Your task to perform on an android device: turn on sleep mode Image 0: 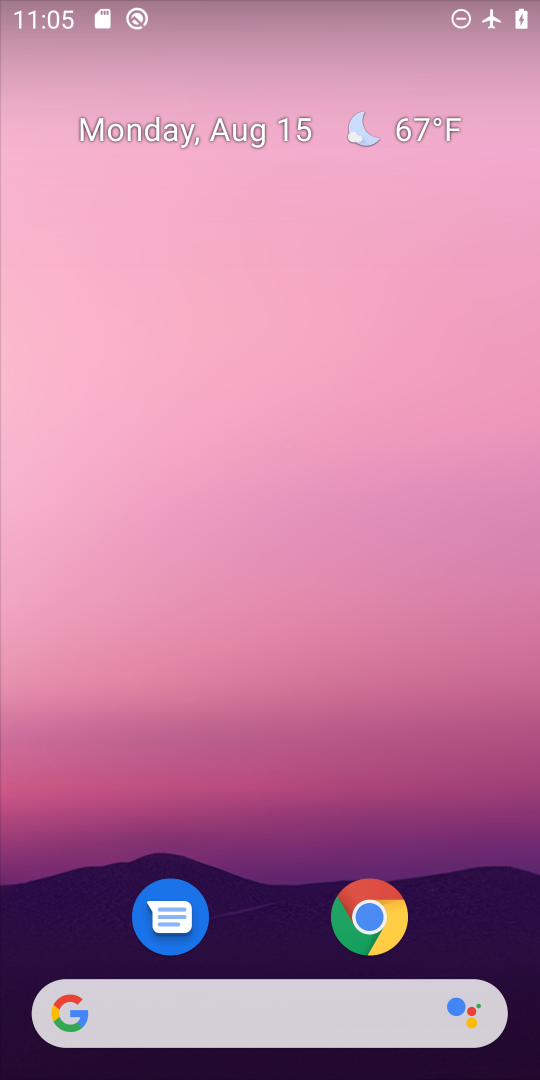
Step 0: drag from (275, 743) to (274, 0)
Your task to perform on an android device: turn on sleep mode Image 1: 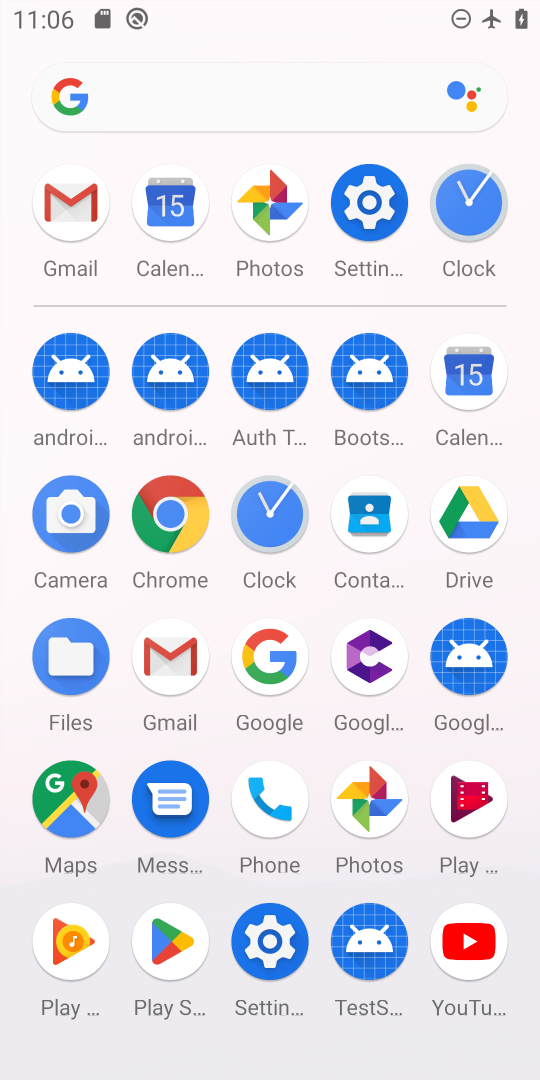
Step 1: click (376, 194)
Your task to perform on an android device: turn on sleep mode Image 2: 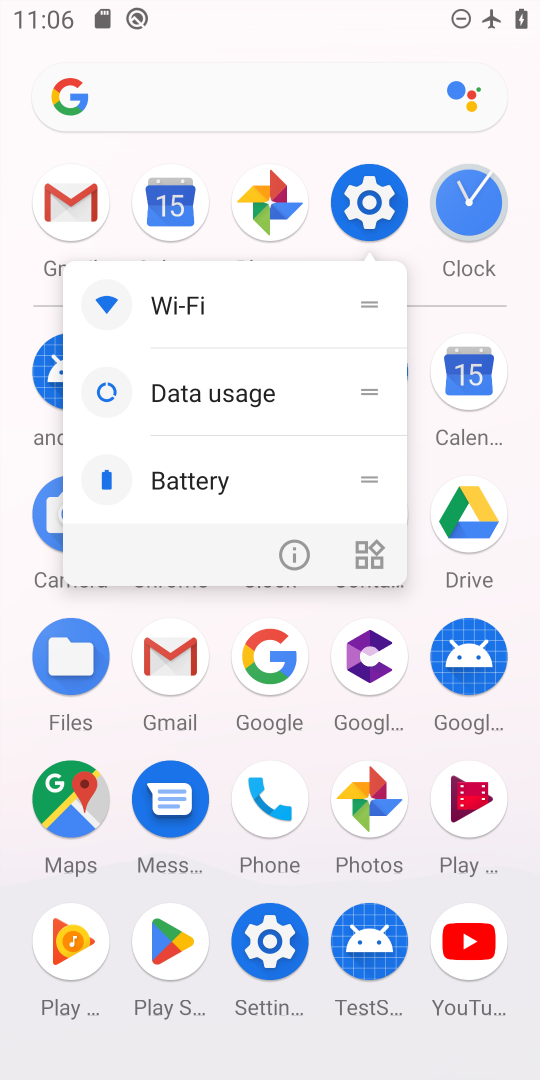
Step 2: click (376, 192)
Your task to perform on an android device: turn on sleep mode Image 3: 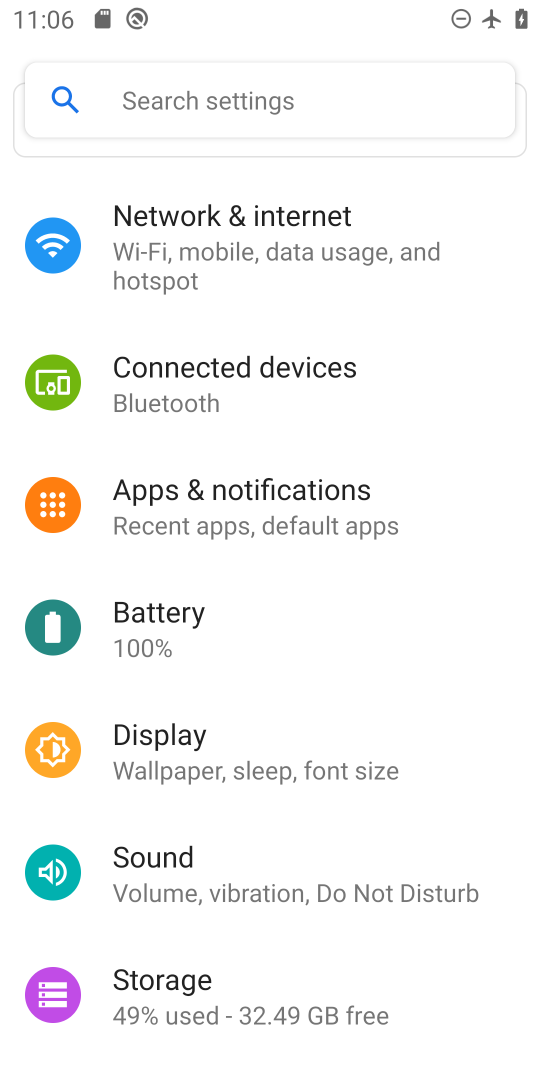
Step 3: click (264, 762)
Your task to perform on an android device: turn on sleep mode Image 4: 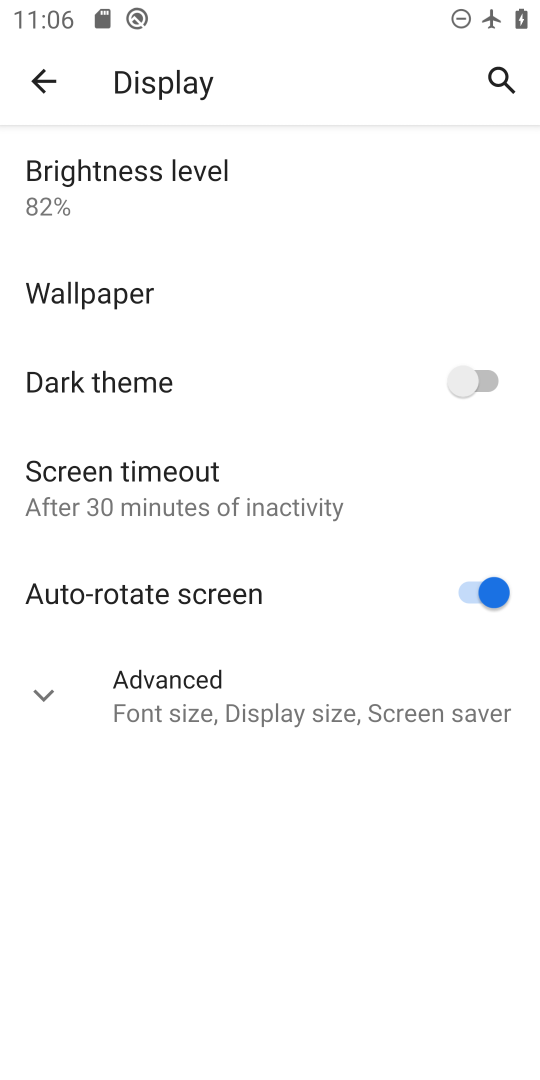
Step 4: click (41, 696)
Your task to perform on an android device: turn on sleep mode Image 5: 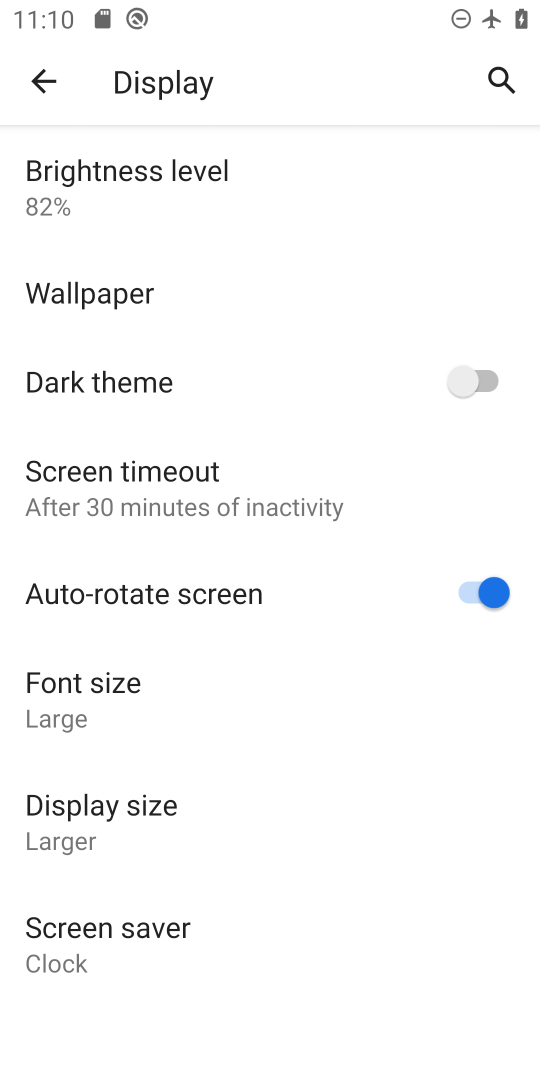
Step 5: task complete